Your task to perform on an android device: Is it going to rain today? Image 0: 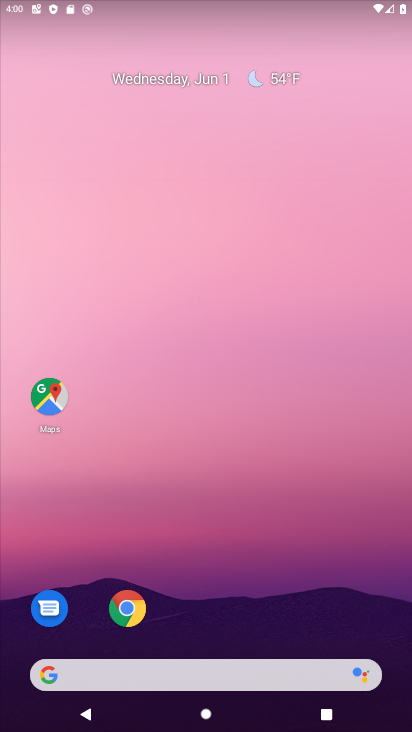
Step 0: click (142, 677)
Your task to perform on an android device: Is it going to rain today? Image 1: 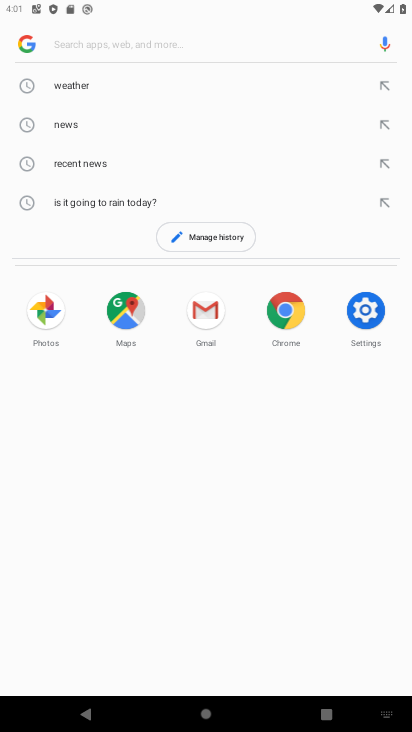
Step 1: click (133, 205)
Your task to perform on an android device: Is it going to rain today? Image 2: 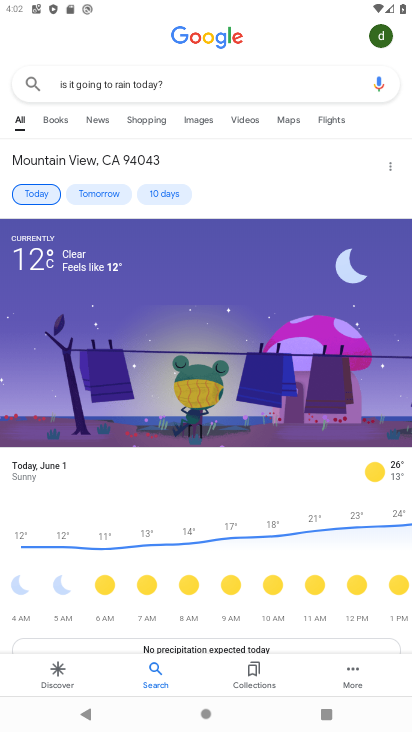
Step 2: task complete